Your task to perform on an android device: turn on bluetooth scan Image 0: 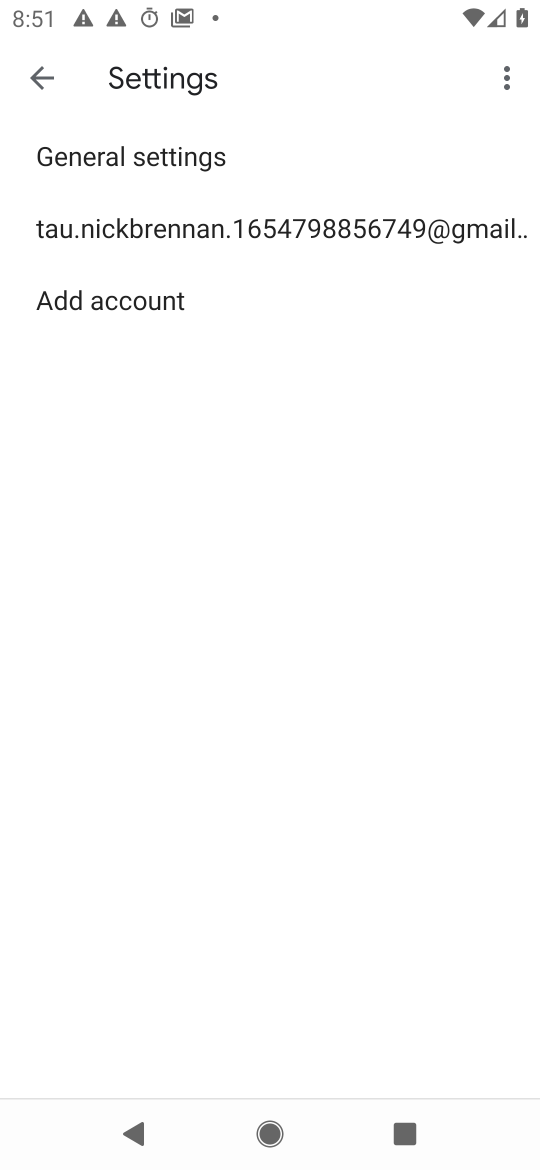
Step 0: press back button
Your task to perform on an android device: turn on bluetooth scan Image 1: 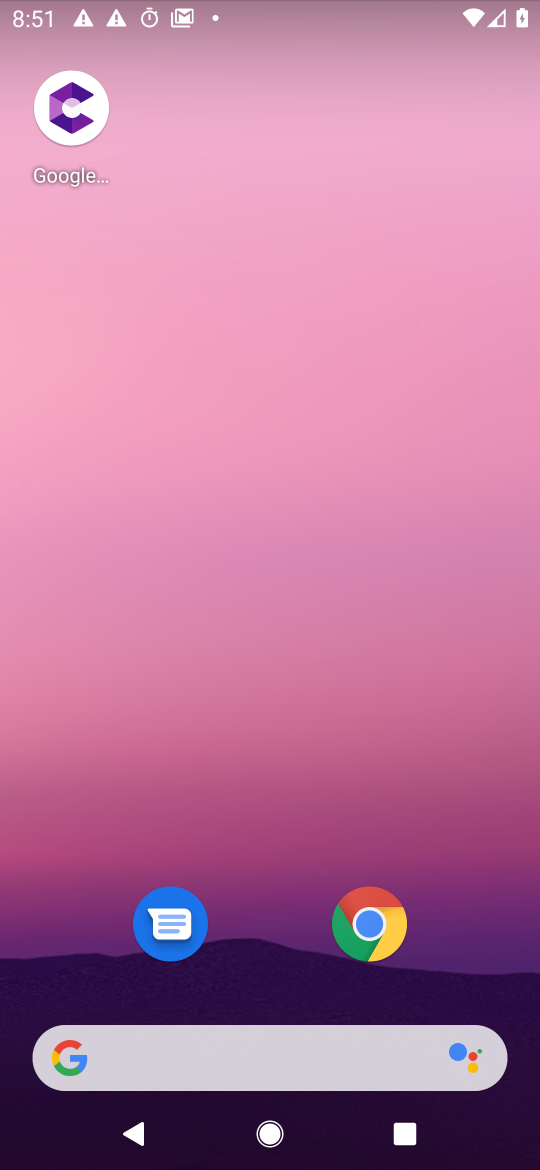
Step 1: drag from (275, 643) to (368, 9)
Your task to perform on an android device: turn on bluetooth scan Image 2: 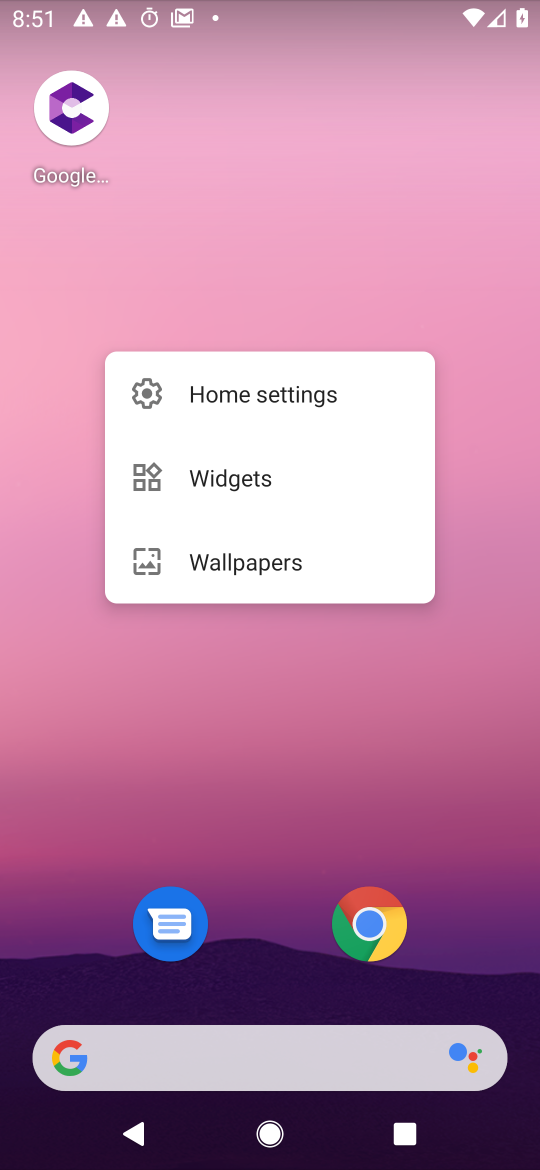
Step 2: click (301, 851)
Your task to perform on an android device: turn on bluetooth scan Image 3: 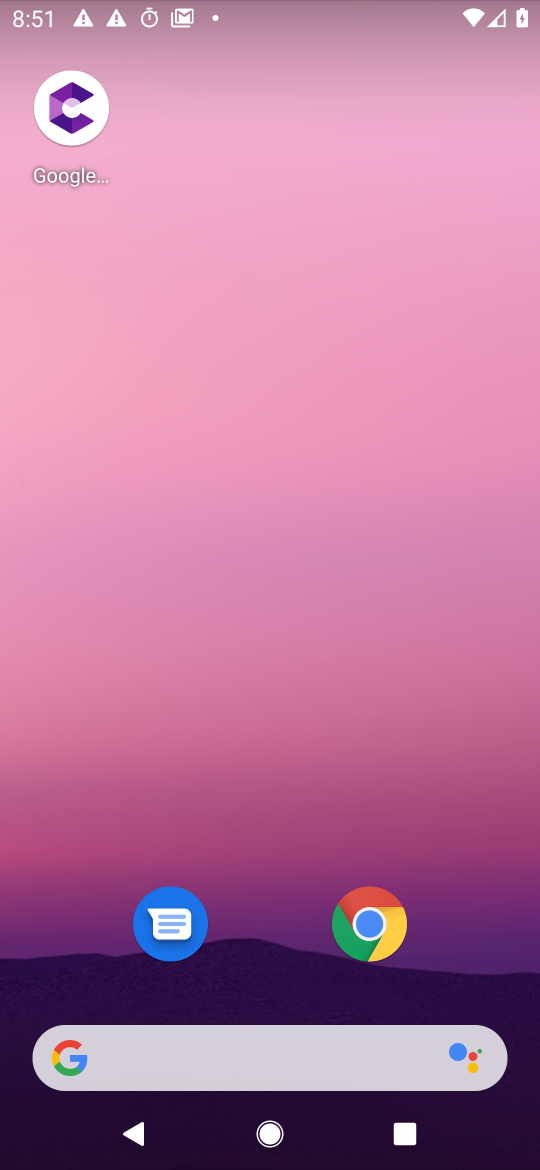
Step 3: drag from (257, 983) to (313, 66)
Your task to perform on an android device: turn on bluetooth scan Image 4: 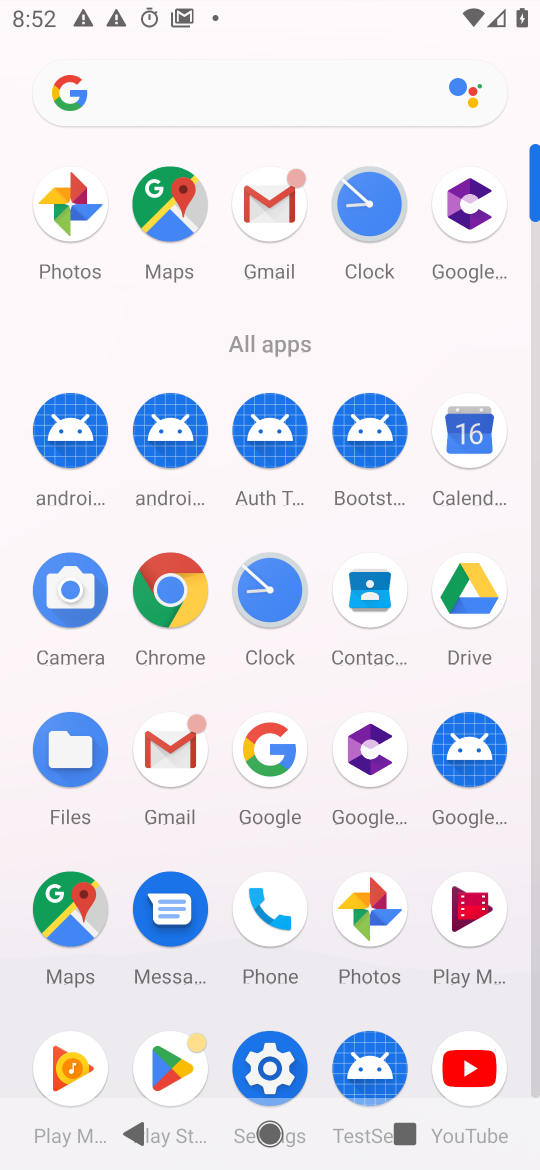
Step 4: click (272, 1063)
Your task to perform on an android device: turn on bluetooth scan Image 5: 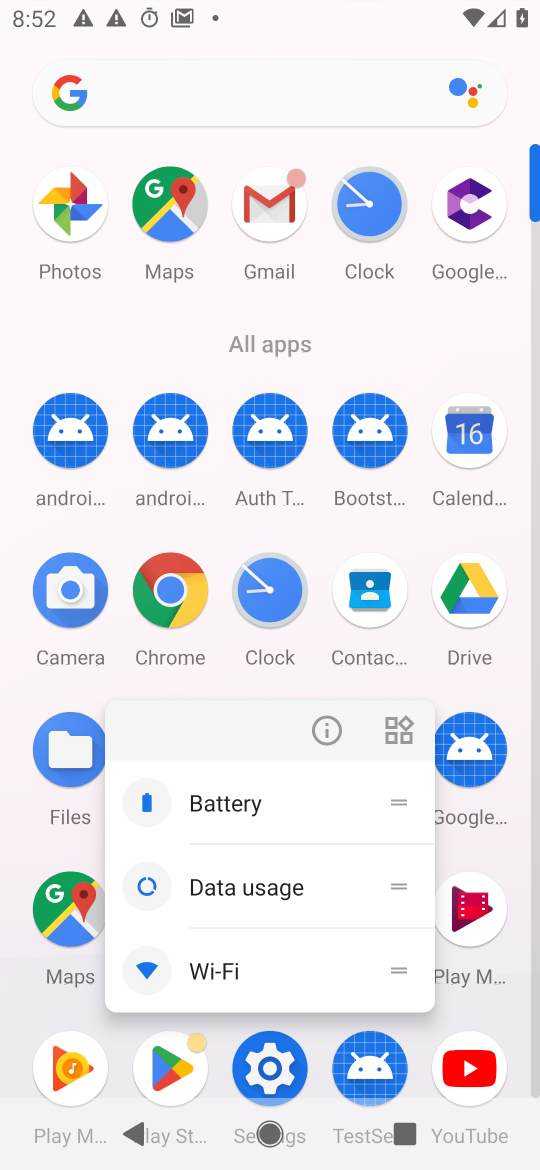
Step 5: click (278, 1055)
Your task to perform on an android device: turn on bluetooth scan Image 6: 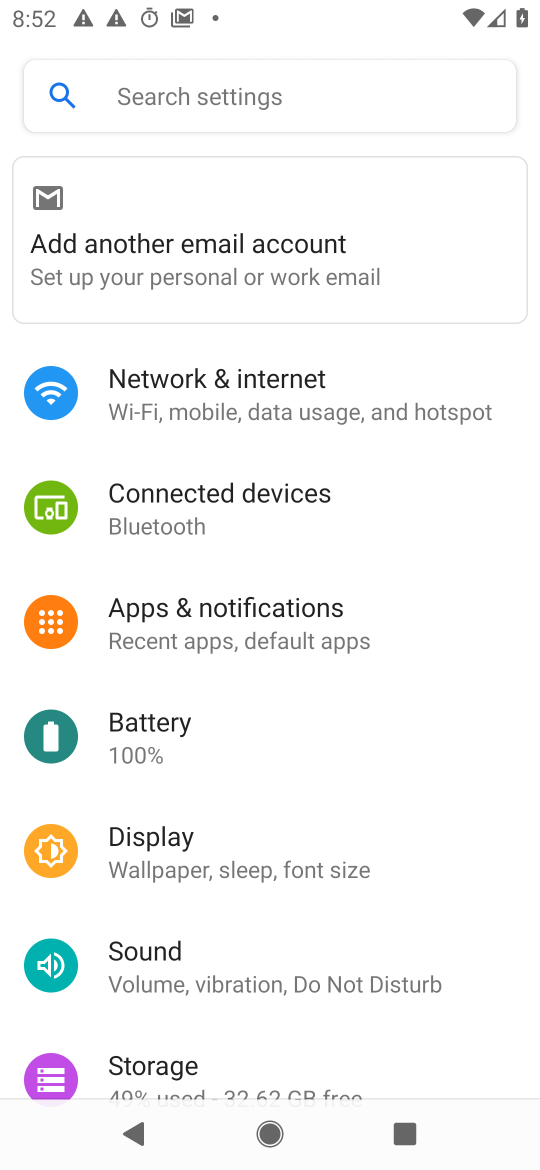
Step 6: click (221, 478)
Your task to perform on an android device: turn on bluetooth scan Image 7: 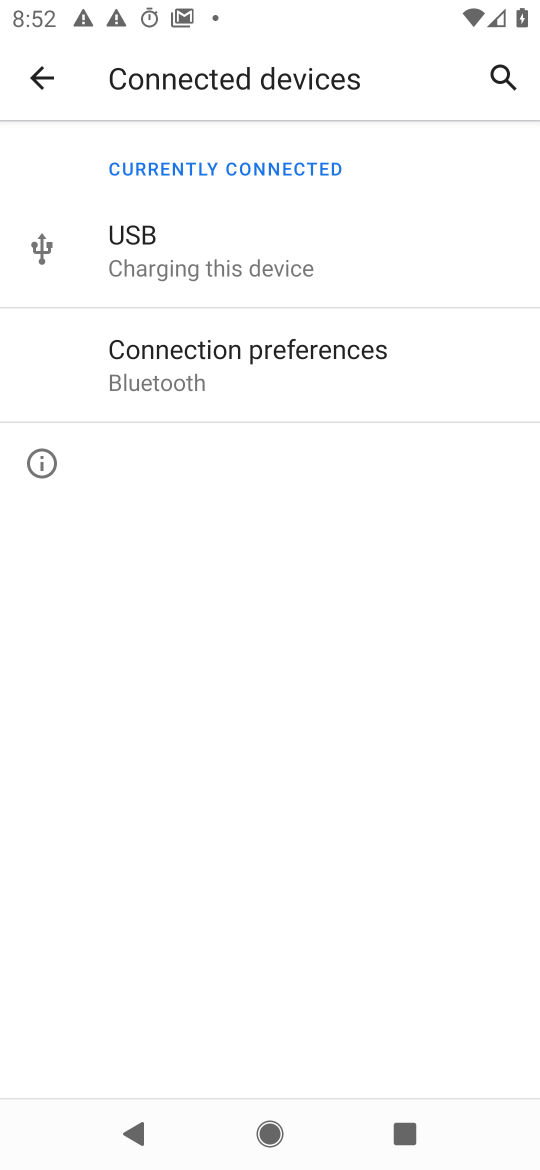
Step 7: click (235, 367)
Your task to perform on an android device: turn on bluetooth scan Image 8: 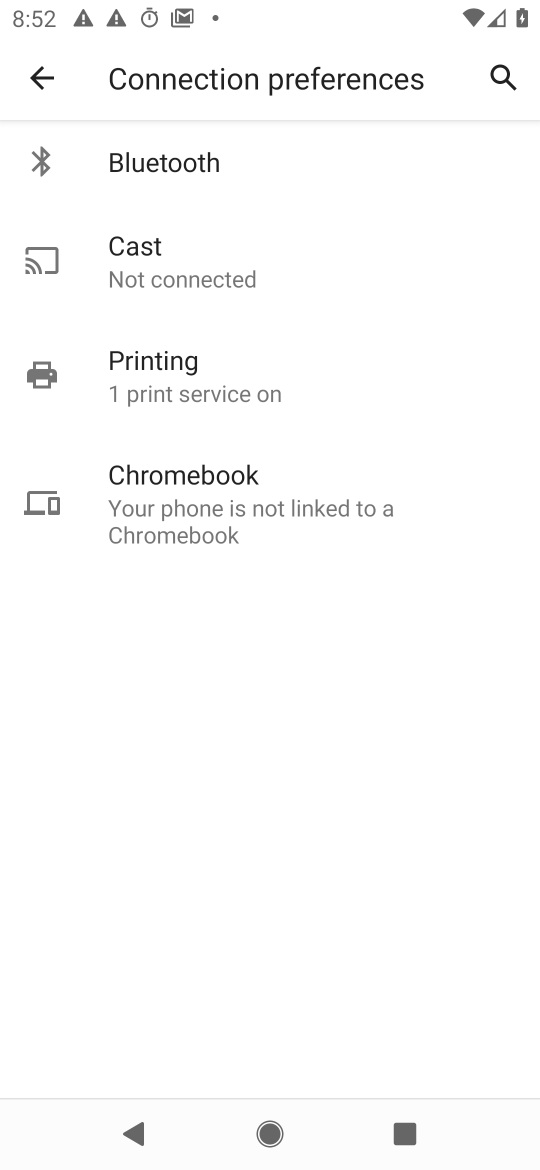
Step 8: click (200, 170)
Your task to perform on an android device: turn on bluetooth scan Image 9: 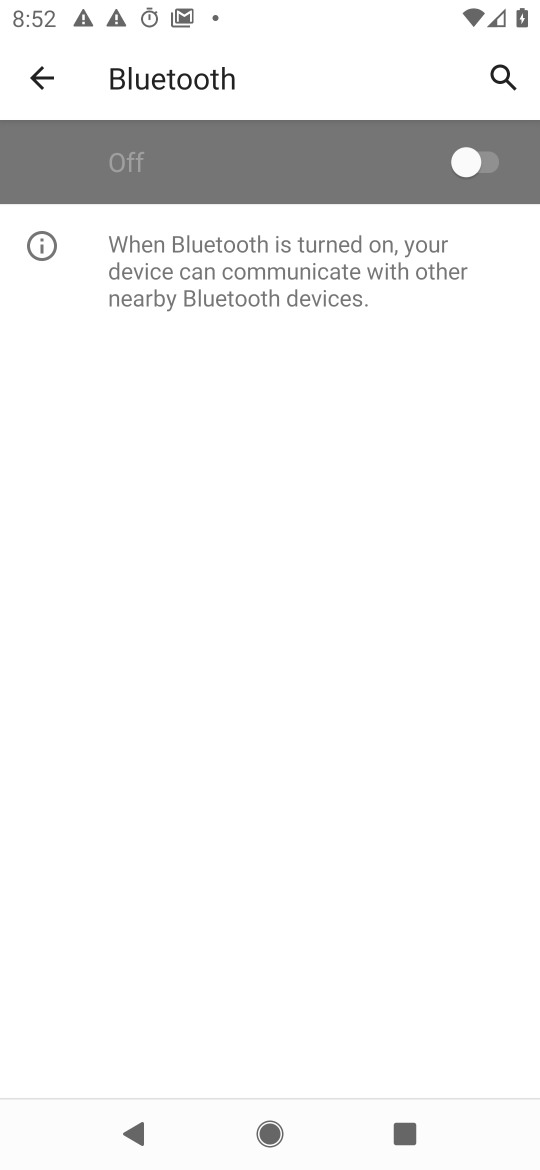
Step 9: click (482, 161)
Your task to perform on an android device: turn on bluetooth scan Image 10: 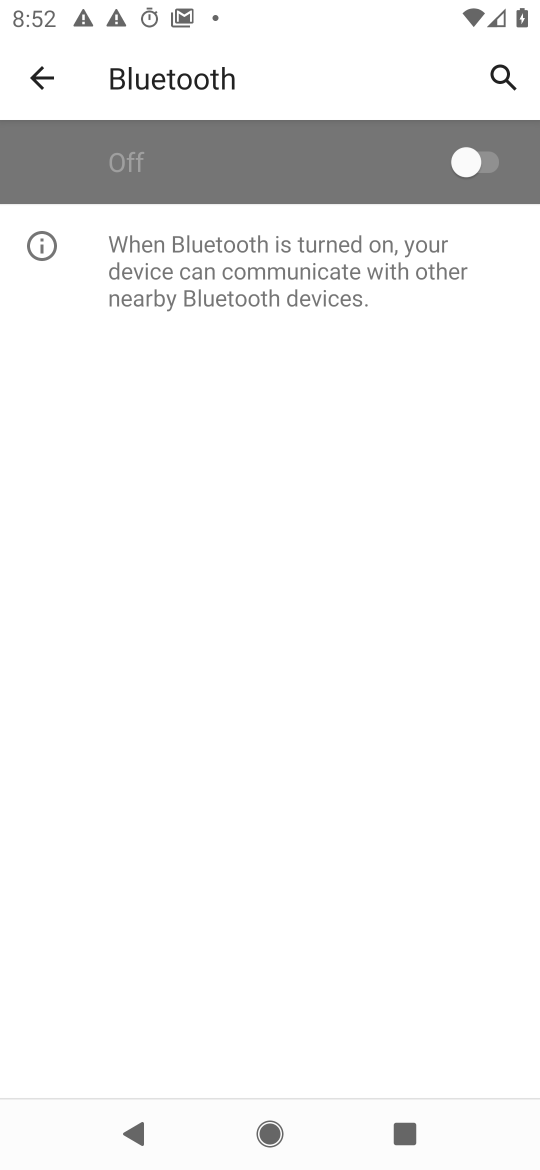
Step 10: task complete